Your task to perform on an android device: Open Reddit.com Image 0: 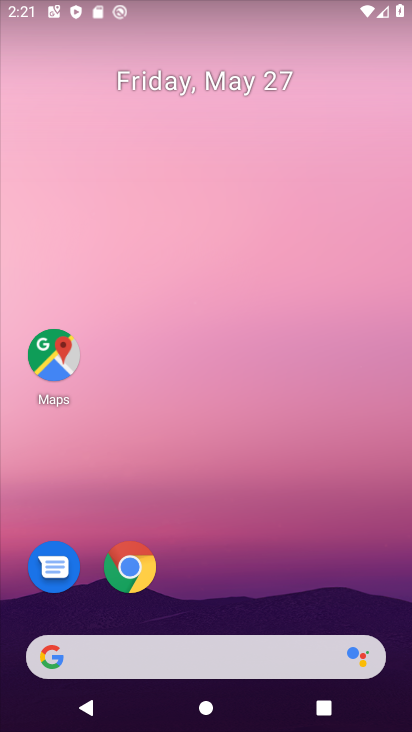
Step 0: click (129, 573)
Your task to perform on an android device: Open Reddit.com Image 1: 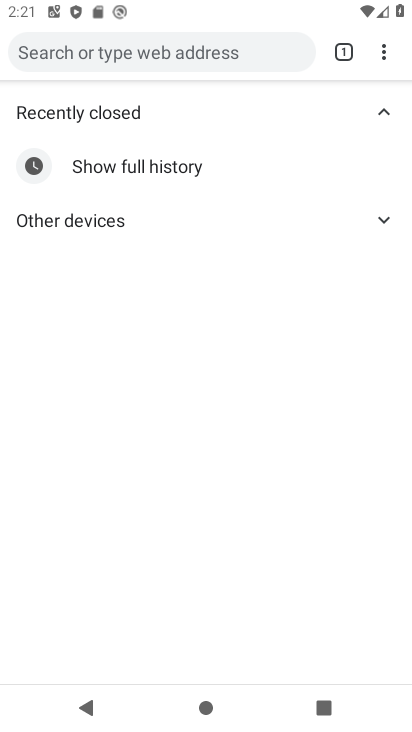
Step 1: click (73, 228)
Your task to perform on an android device: Open Reddit.com Image 2: 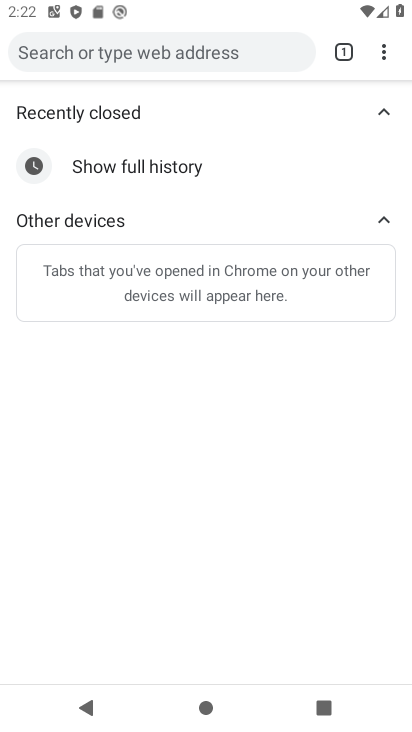
Step 2: click (176, 52)
Your task to perform on an android device: Open Reddit.com Image 3: 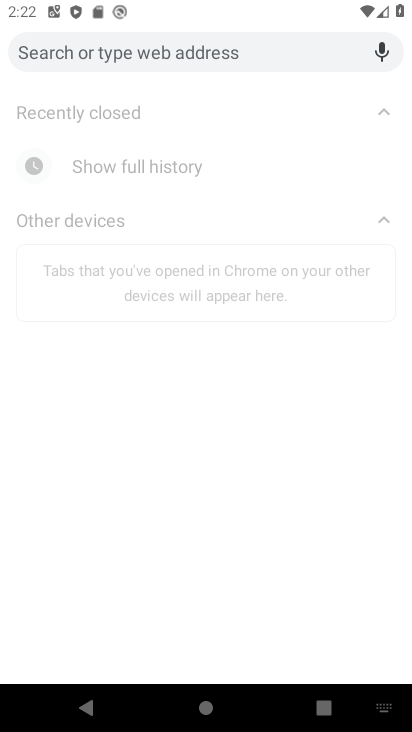
Step 3: type "Reddit.com"
Your task to perform on an android device: Open Reddit.com Image 4: 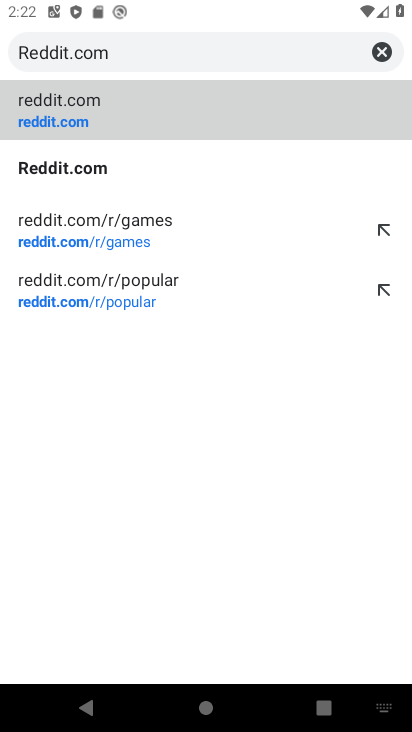
Step 4: click (45, 120)
Your task to perform on an android device: Open Reddit.com Image 5: 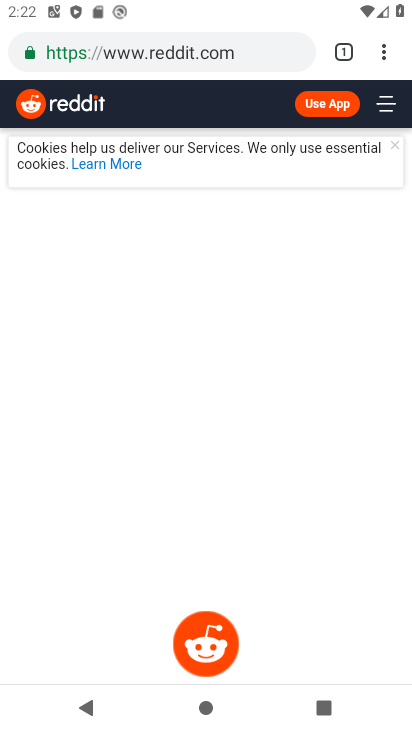
Step 5: task complete